Your task to perform on an android device: Show me popular videos on Youtube Image 0: 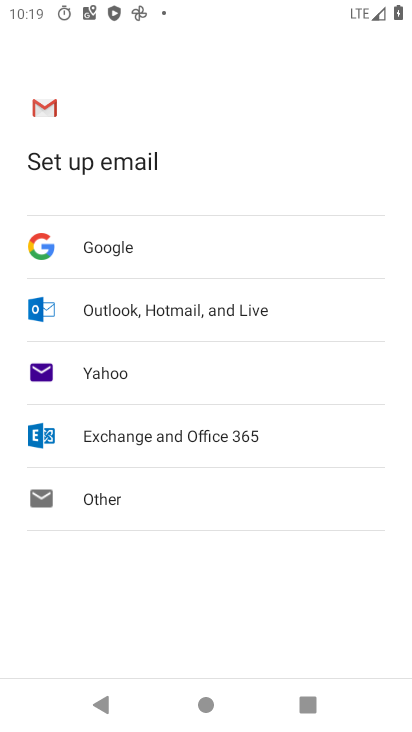
Step 0: press home button
Your task to perform on an android device: Show me popular videos on Youtube Image 1: 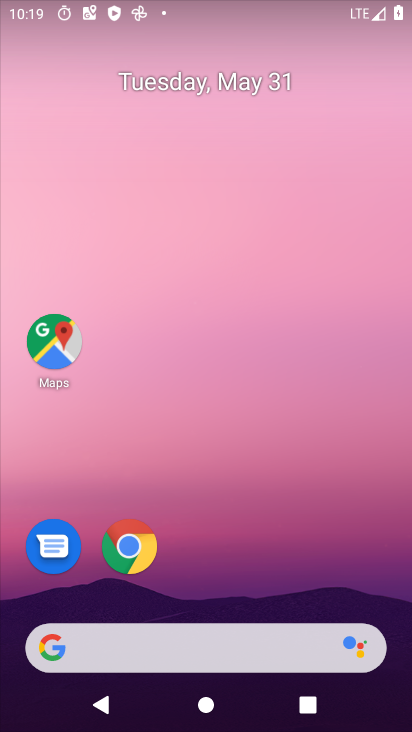
Step 1: drag from (169, 703) to (187, 492)
Your task to perform on an android device: Show me popular videos on Youtube Image 2: 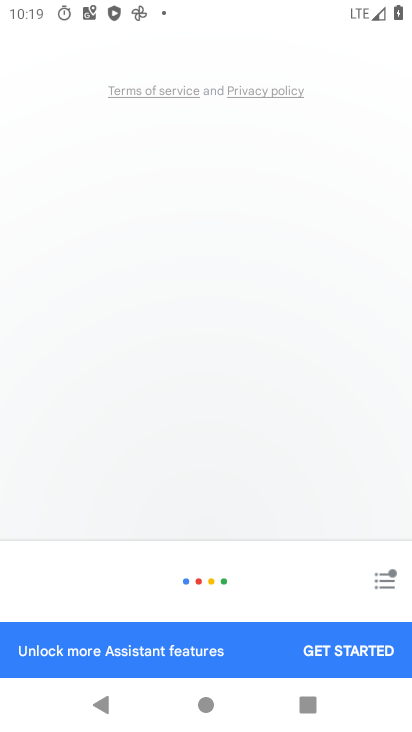
Step 2: press home button
Your task to perform on an android device: Show me popular videos on Youtube Image 3: 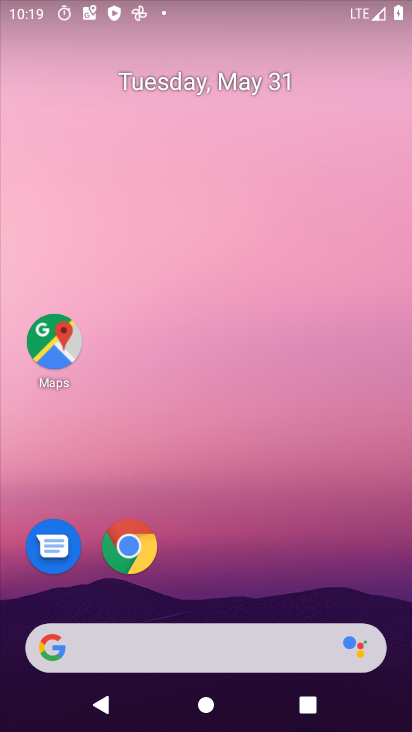
Step 3: drag from (148, 695) to (255, 66)
Your task to perform on an android device: Show me popular videos on Youtube Image 4: 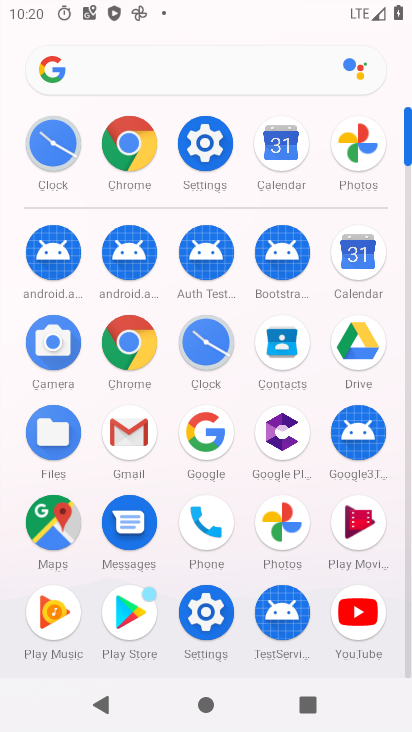
Step 4: click (368, 605)
Your task to perform on an android device: Show me popular videos on Youtube Image 5: 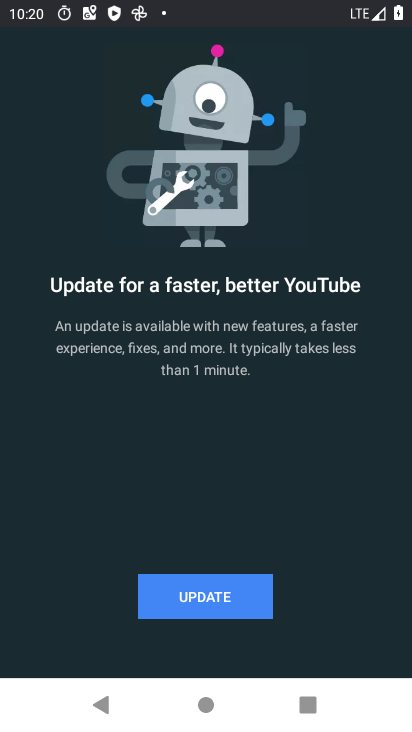
Step 5: click (234, 604)
Your task to perform on an android device: Show me popular videos on Youtube Image 6: 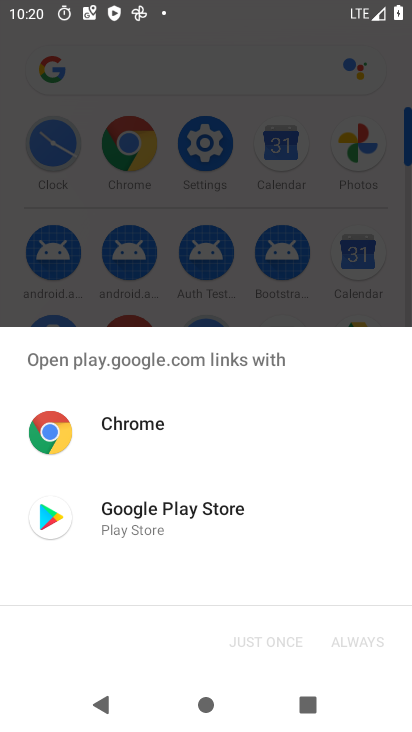
Step 6: click (147, 508)
Your task to perform on an android device: Show me popular videos on Youtube Image 7: 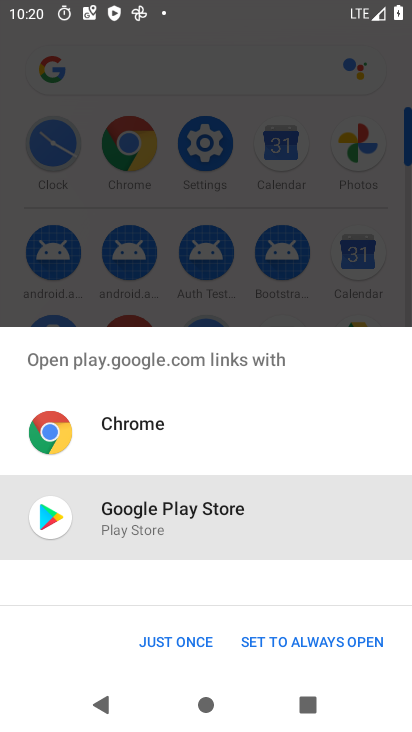
Step 7: click (279, 645)
Your task to perform on an android device: Show me popular videos on Youtube Image 8: 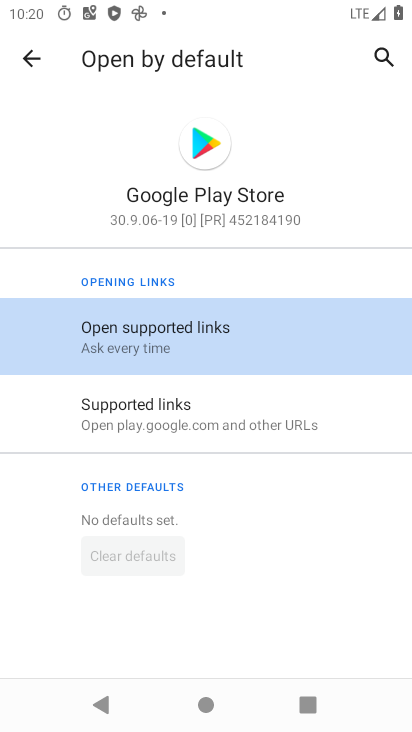
Step 8: click (228, 318)
Your task to perform on an android device: Show me popular videos on Youtube Image 9: 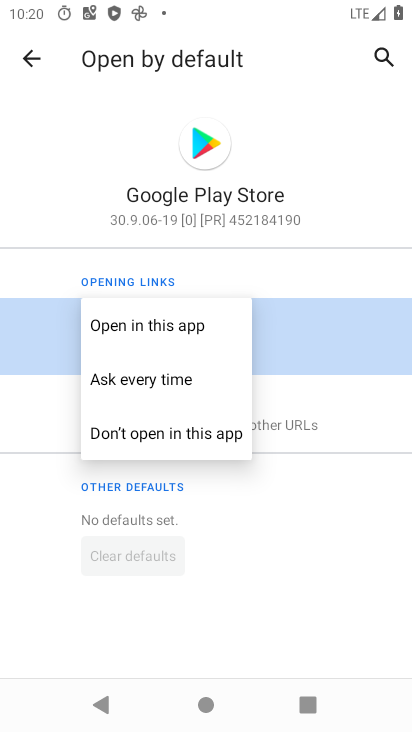
Step 9: click (197, 335)
Your task to perform on an android device: Show me popular videos on Youtube Image 10: 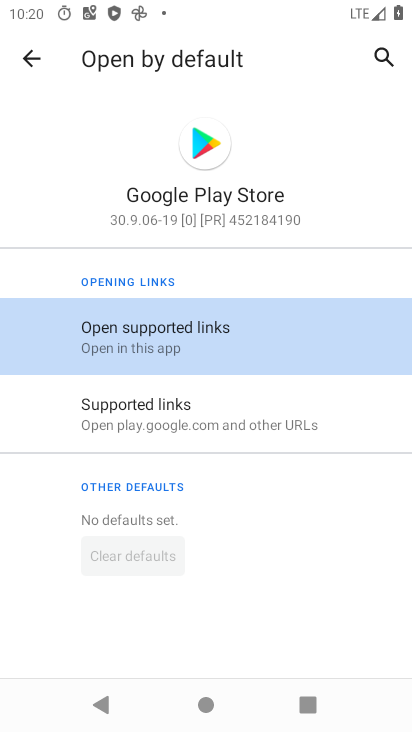
Step 10: click (208, 429)
Your task to perform on an android device: Show me popular videos on Youtube Image 11: 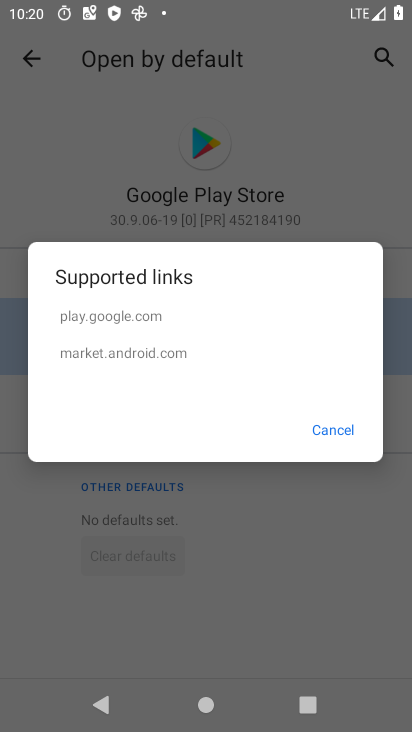
Step 11: click (130, 310)
Your task to perform on an android device: Show me popular videos on Youtube Image 12: 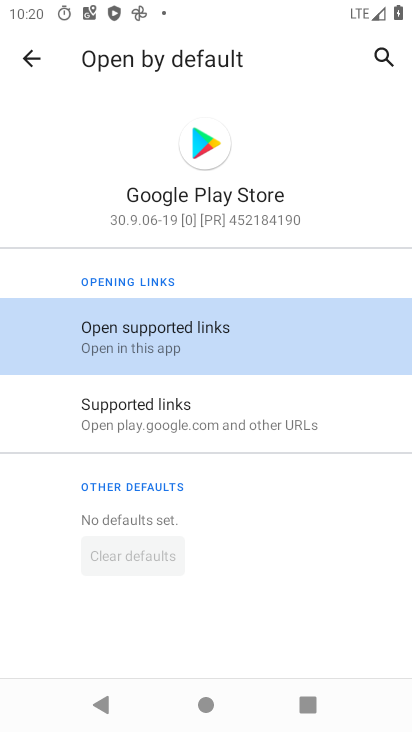
Step 12: click (130, 310)
Your task to perform on an android device: Show me popular videos on Youtube Image 13: 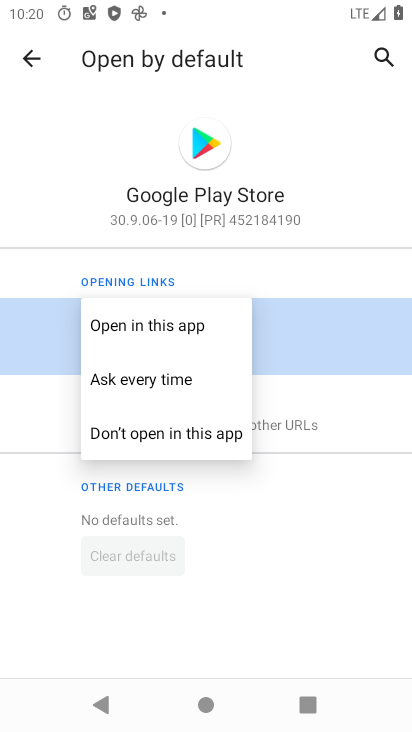
Step 13: click (166, 322)
Your task to perform on an android device: Show me popular videos on Youtube Image 14: 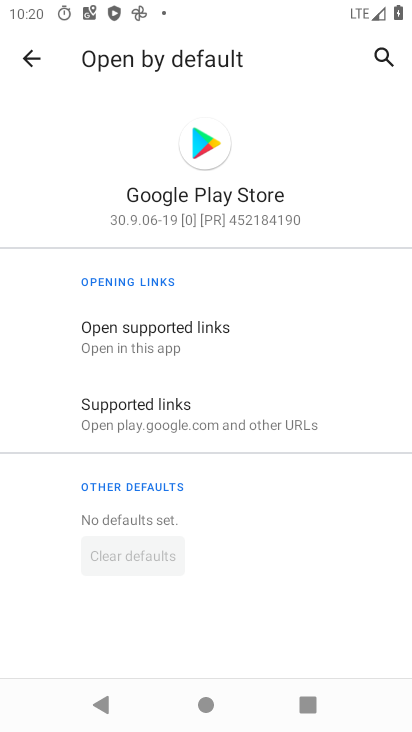
Step 14: click (187, 422)
Your task to perform on an android device: Show me popular videos on Youtube Image 15: 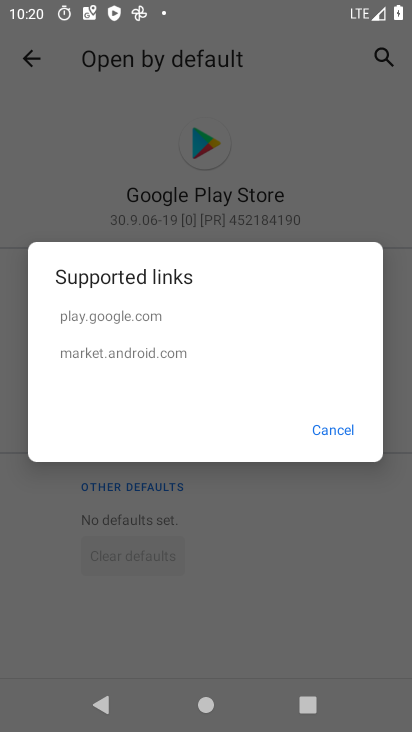
Step 15: click (141, 307)
Your task to perform on an android device: Show me popular videos on Youtube Image 16: 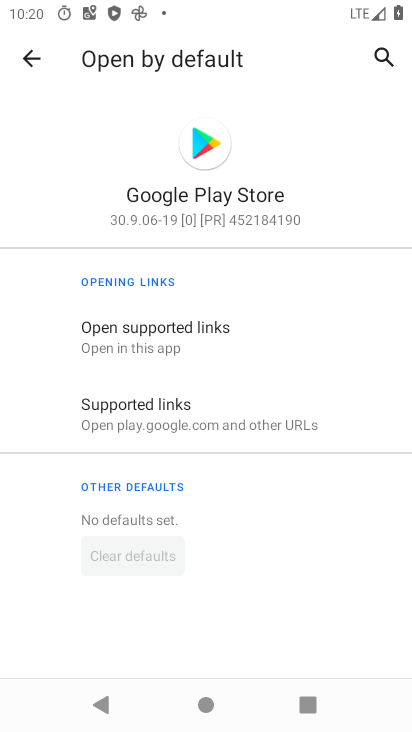
Step 16: click (396, 45)
Your task to perform on an android device: Show me popular videos on Youtube Image 17: 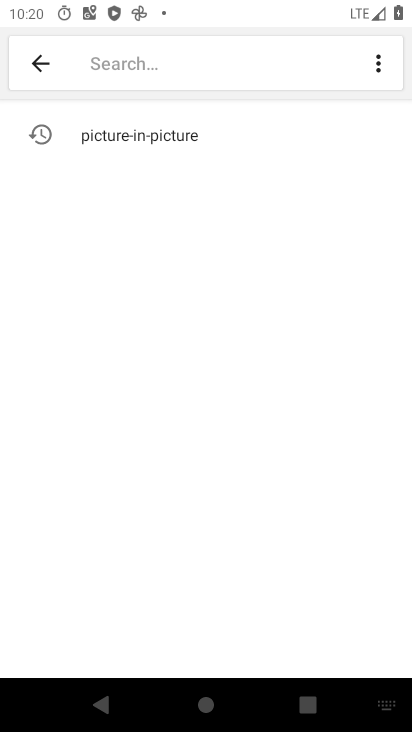
Step 17: type "youtube"
Your task to perform on an android device: Show me popular videos on Youtube Image 18: 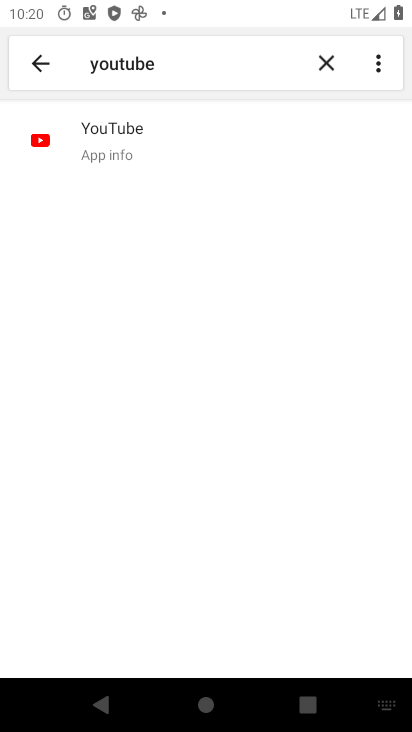
Step 18: click (90, 156)
Your task to perform on an android device: Show me popular videos on Youtube Image 19: 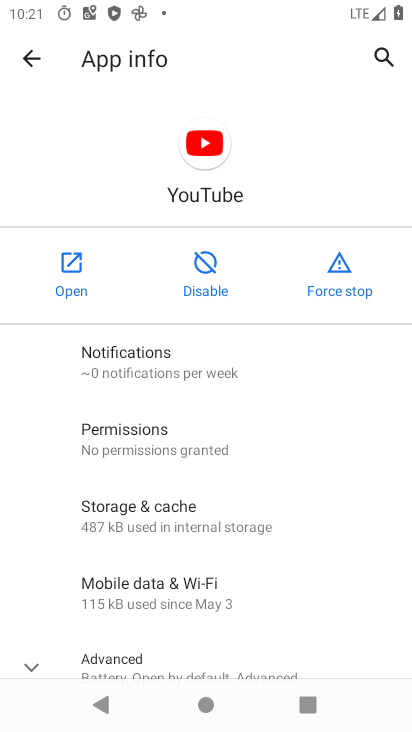
Step 19: drag from (285, 482) to (354, 16)
Your task to perform on an android device: Show me popular videos on Youtube Image 20: 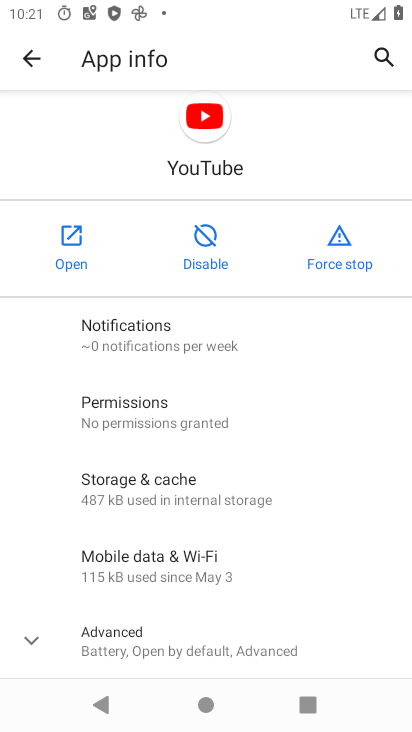
Step 20: press back button
Your task to perform on an android device: Show me popular videos on Youtube Image 21: 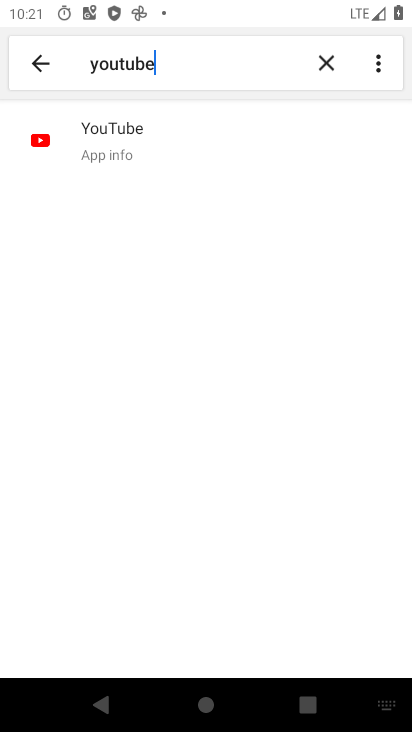
Step 21: press back button
Your task to perform on an android device: Show me popular videos on Youtube Image 22: 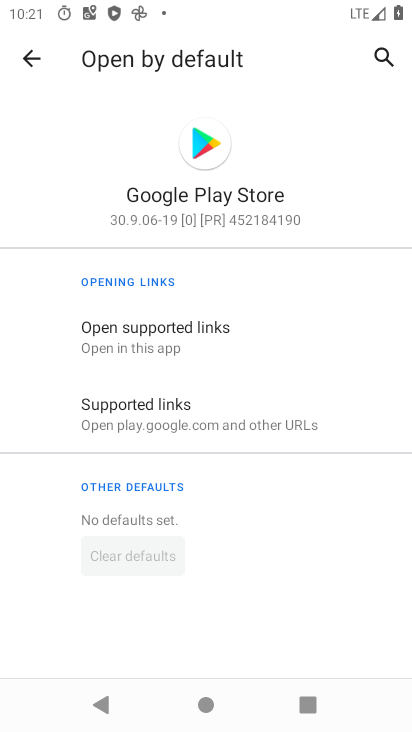
Step 22: press back button
Your task to perform on an android device: Show me popular videos on Youtube Image 23: 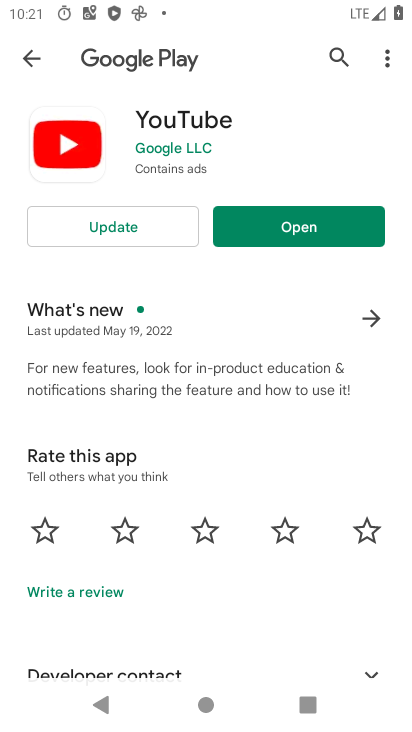
Step 23: click (124, 230)
Your task to perform on an android device: Show me popular videos on Youtube Image 24: 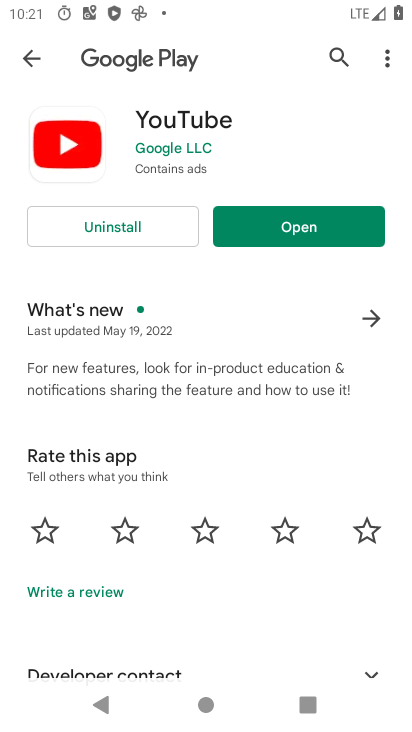
Step 24: click (287, 232)
Your task to perform on an android device: Show me popular videos on Youtube Image 25: 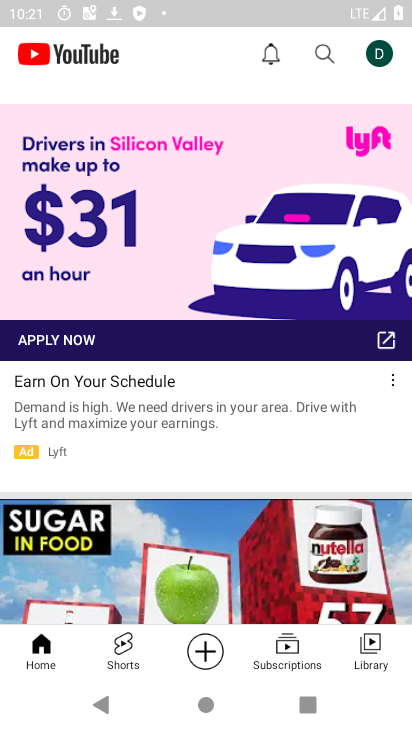
Step 25: click (318, 40)
Your task to perform on an android device: Show me popular videos on Youtube Image 26: 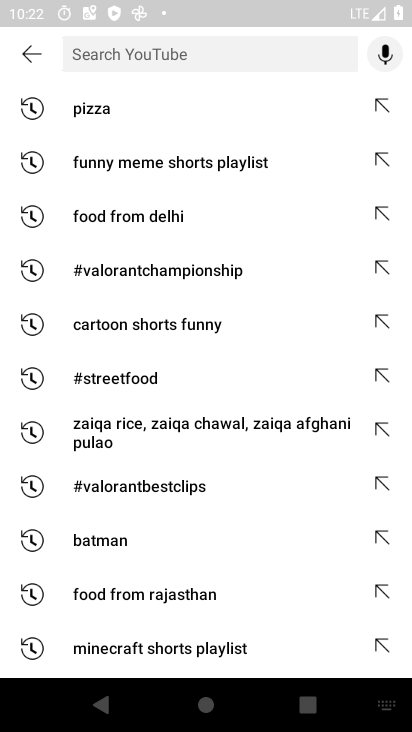
Step 26: type "popular video"
Your task to perform on an android device: Show me popular videos on Youtube Image 27: 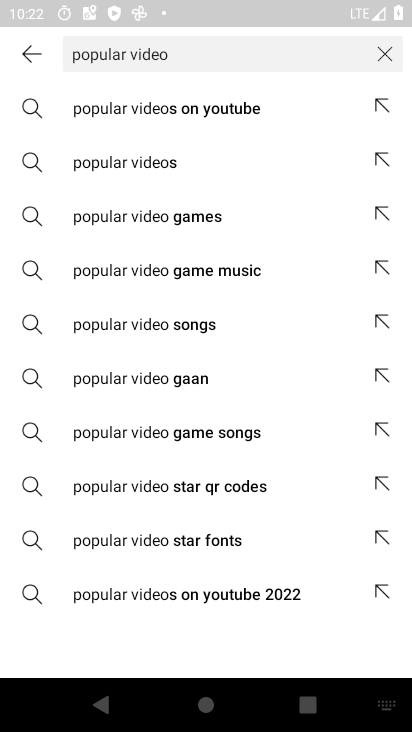
Step 27: click (159, 107)
Your task to perform on an android device: Show me popular videos on Youtube Image 28: 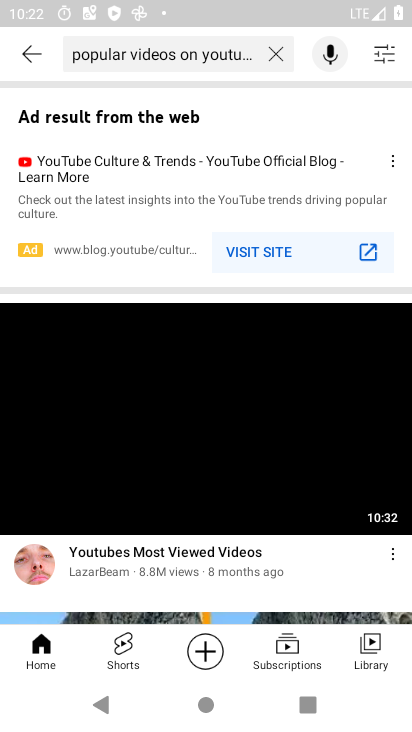
Step 28: click (186, 394)
Your task to perform on an android device: Show me popular videos on Youtube Image 29: 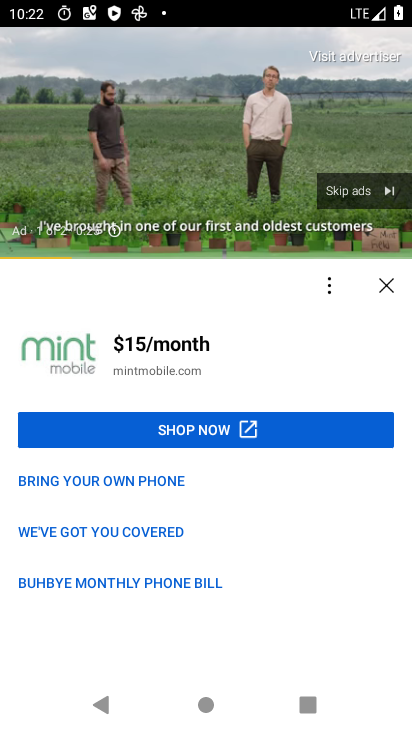
Step 29: click (384, 195)
Your task to perform on an android device: Show me popular videos on Youtube Image 30: 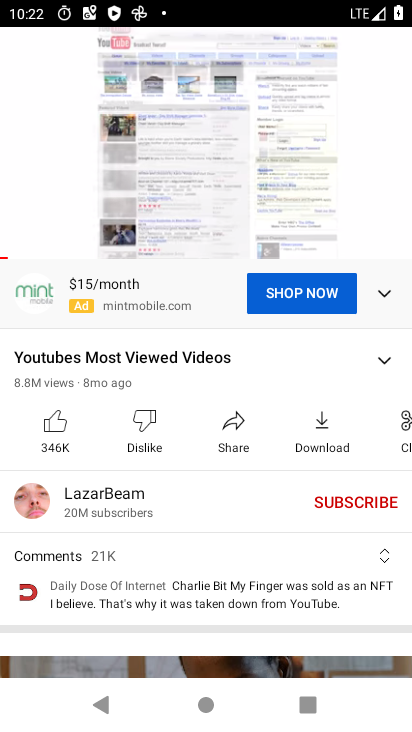
Step 30: task complete